Your task to perform on an android device: Go to Google maps Image 0: 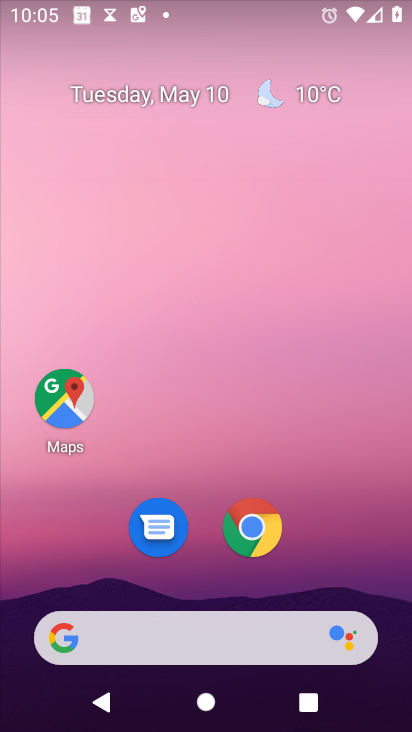
Step 0: click (77, 402)
Your task to perform on an android device: Go to Google maps Image 1: 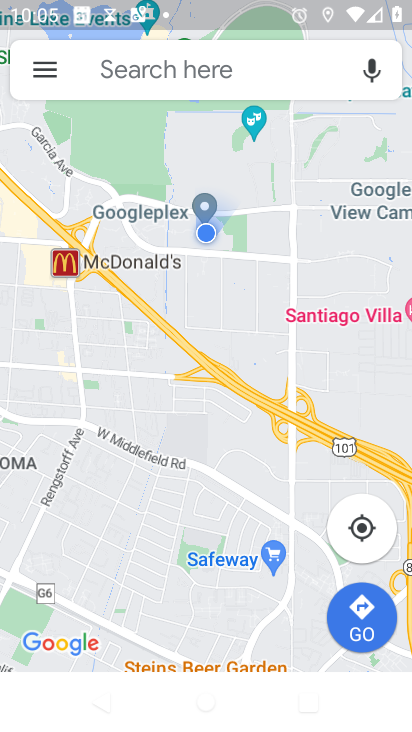
Step 1: task complete